Your task to perform on an android device: turn on wifi Image 0: 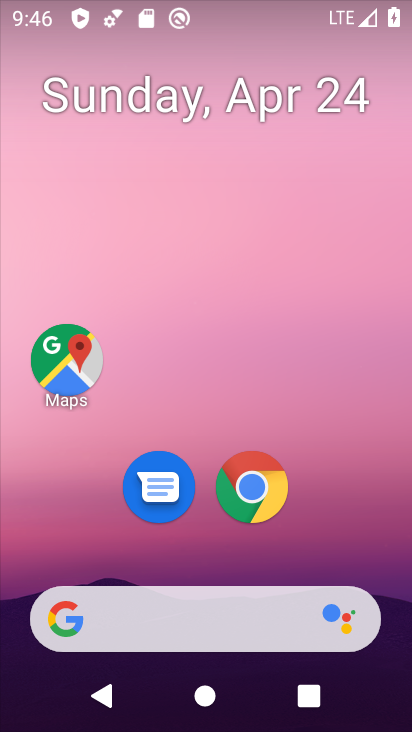
Step 0: drag from (347, 529) to (337, 490)
Your task to perform on an android device: turn on wifi Image 1: 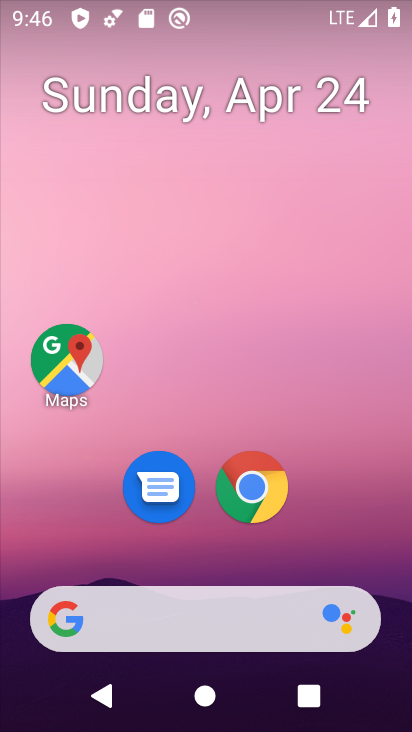
Step 1: drag from (260, 10) to (242, 387)
Your task to perform on an android device: turn on wifi Image 2: 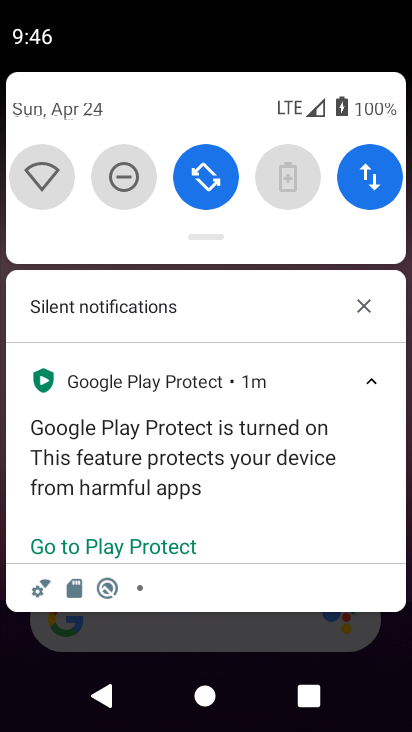
Step 2: drag from (267, 234) to (255, 485)
Your task to perform on an android device: turn on wifi Image 3: 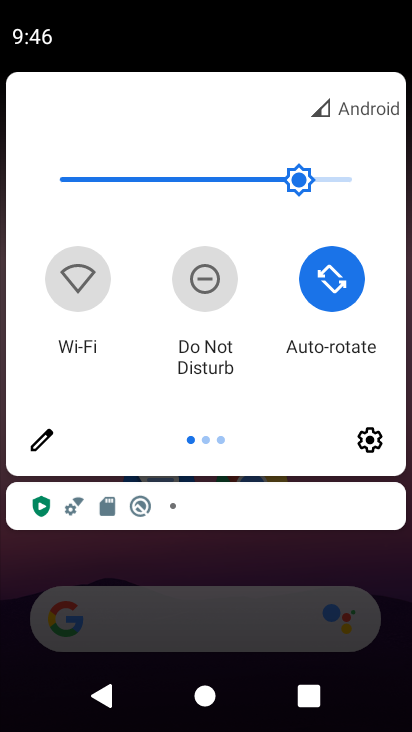
Step 3: click (75, 272)
Your task to perform on an android device: turn on wifi Image 4: 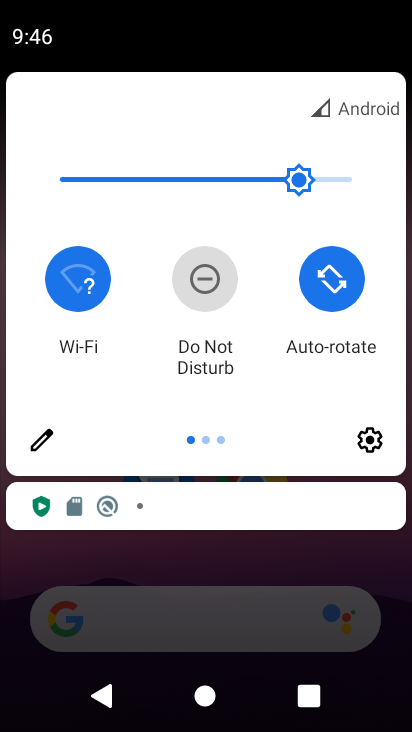
Step 4: task complete